Your task to perform on an android device: Go to Reddit.com Image 0: 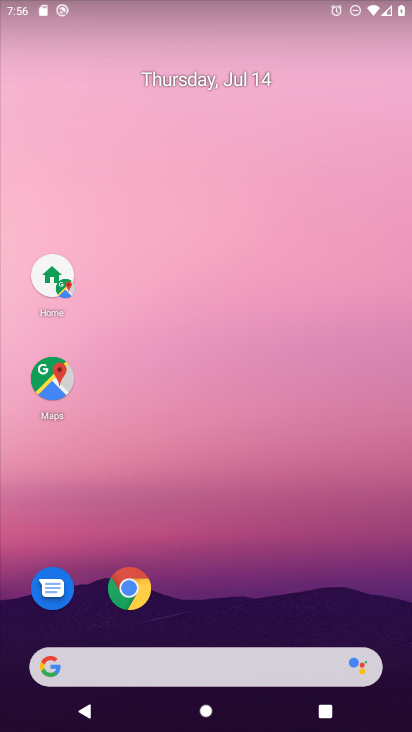
Step 0: click (120, 656)
Your task to perform on an android device: Go to Reddit.com Image 1: 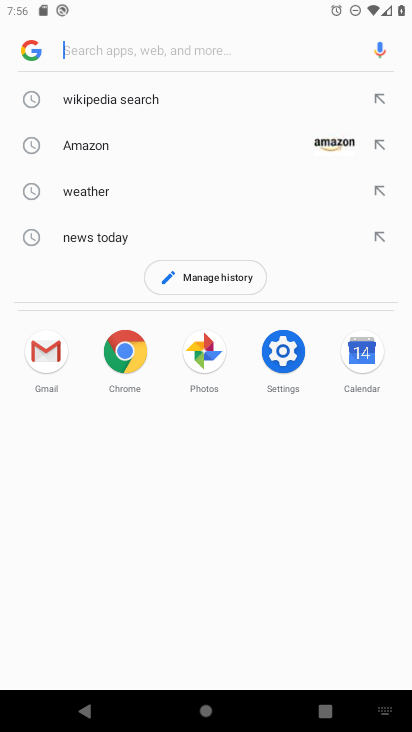
Step 1: click (336, 497)
Your task to perform on an android device: Go to Reddit.com Image 2: 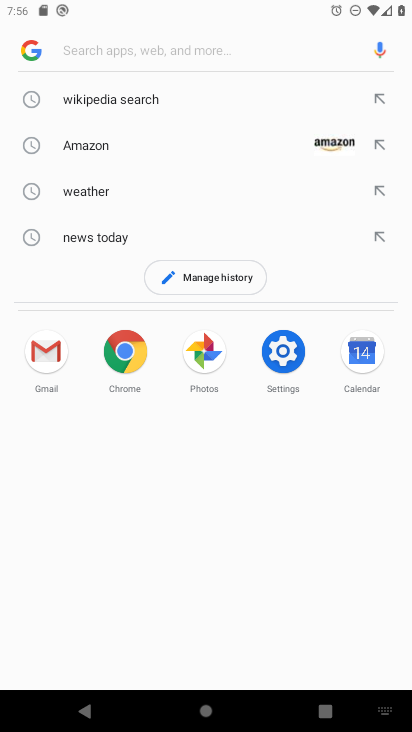
Step 2: type "Reddit.com"
Your task to perform on an android device: Go to Reddit.com Image 3: 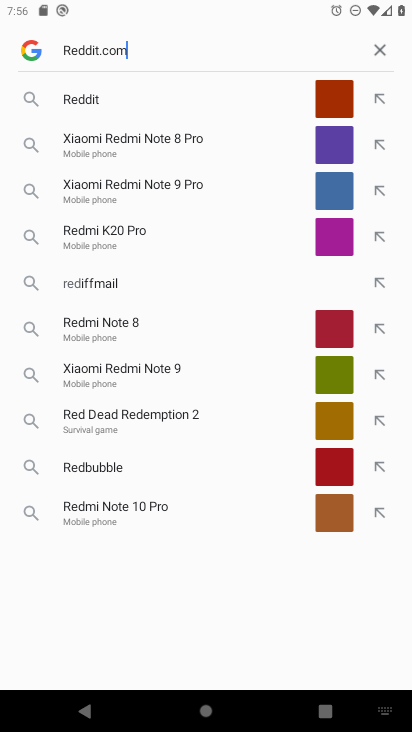
Step 3: type ""
Your task to perform on an android device: Go to Reddit.com Image 4: 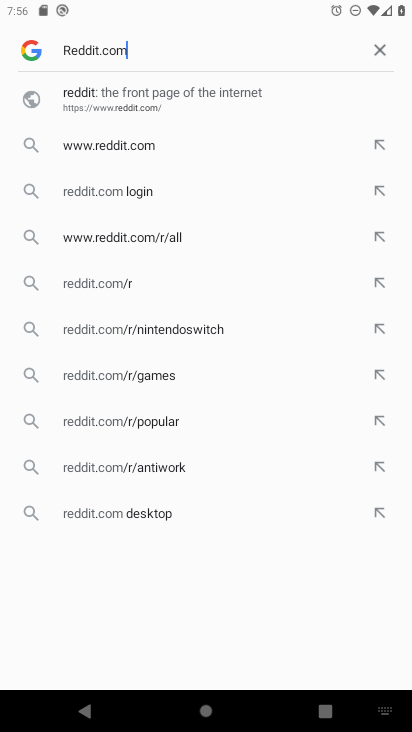
Step 4: click (113, 156)
Your task to perform on an android device: Go to Reddit.com Image 5: 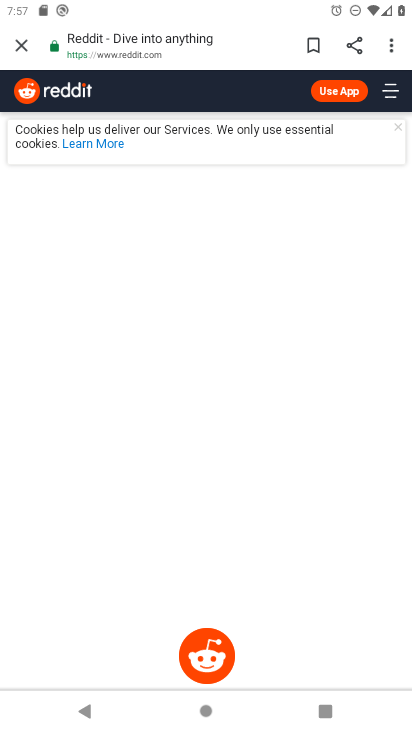
Step 5: task complete